Your task to perform on an android device: open app "Walmart Shopping & Grocery" (install if not already installed) Image 0: 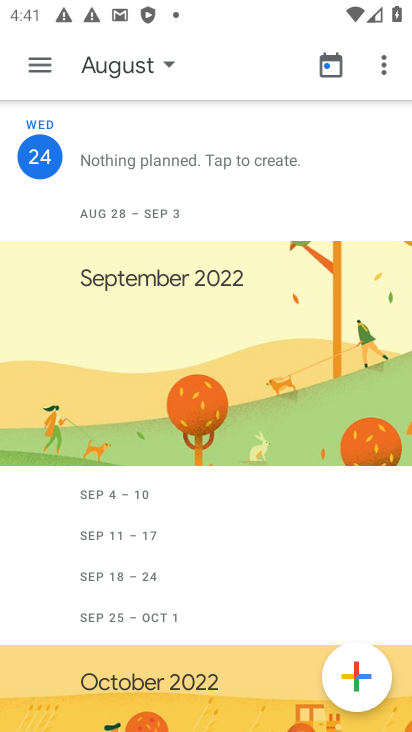
Step 0: press home button
Your task to perform on an android device: open app "Walmart Shopping & Grocery" (install if not already installed) Image 1: 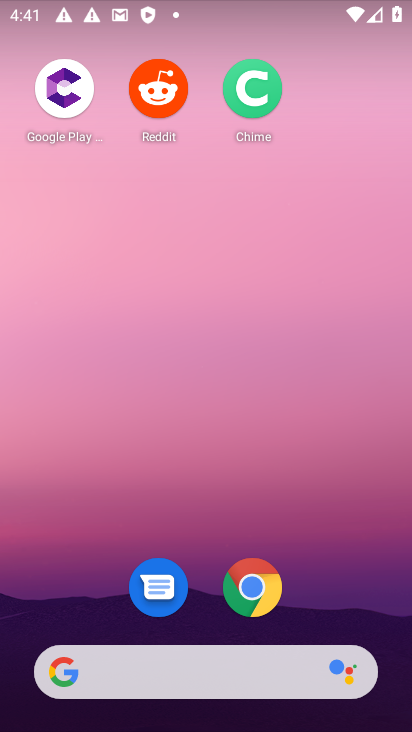
Step 1: drag from (156, 656) to (161, 143)
Your task to perform on an android device: open app "Walmart Shopping & Grocery" (install if not already installed) Image 2: 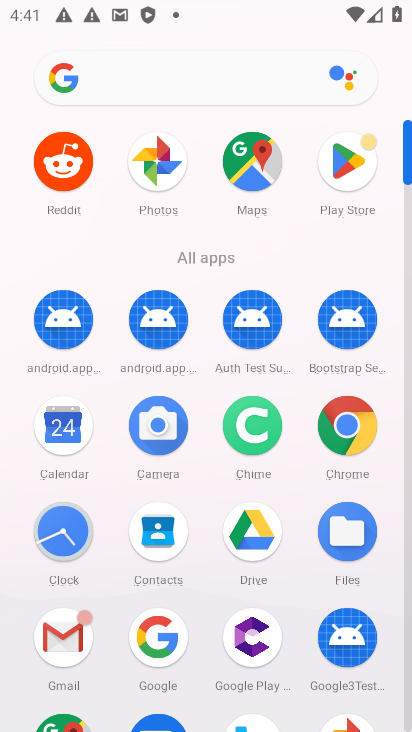
Step 2: click (351, 176)
Your task to perform on an android device: open app "Walmart Shopping & Grocery" (install if not already installed) Image 3: 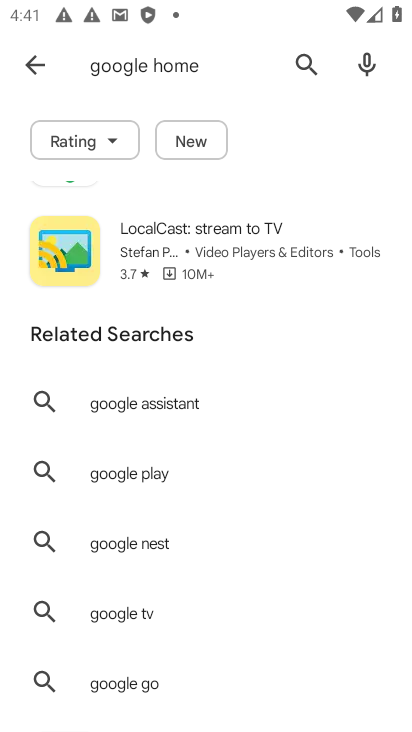
Step 3: press back button
Your task to perform on an android device: open app "Walmart Shopping & Grocery" (install if not already installed) Image 4: 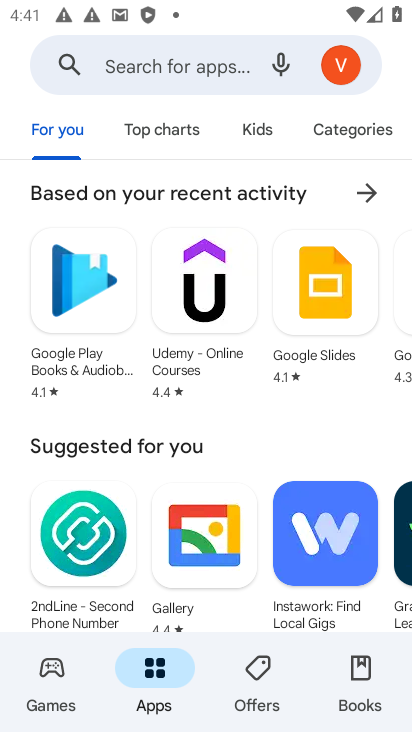
Step 4: click (192, 74)
Your task to perform on an android device: open app "Walmart Shopping & Grocery" (install if not already installed) Image 5: 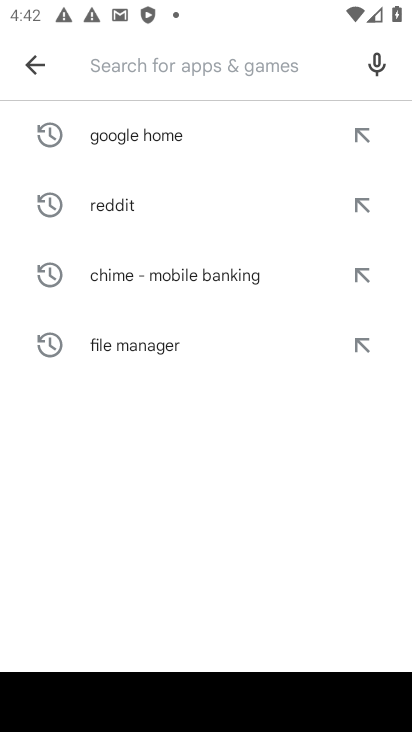
Step 5: type "Walmart Shopping & Grocery"
Your task to perform on an android device: open app "Walmart Shopping & Grocery" (install if not already installed) Image 6: 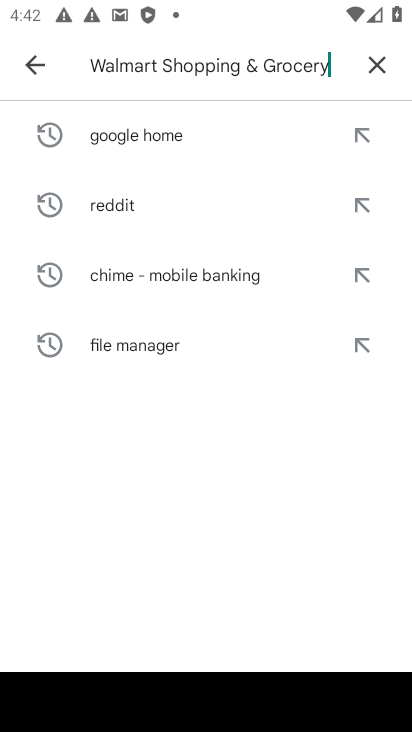
Step 6: type ""
Your task to perform on an android device: open app "Walmart Shopping & Grocery" (install if not already installed) Image 7: 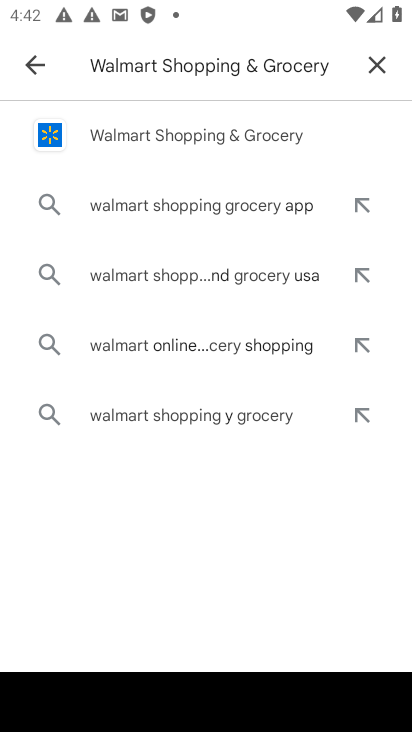
Step 7: click (233, 135)
Your task to perform on an android device: open app "Walmart Shopping & Grocery" (install if not already installed) Image 8: 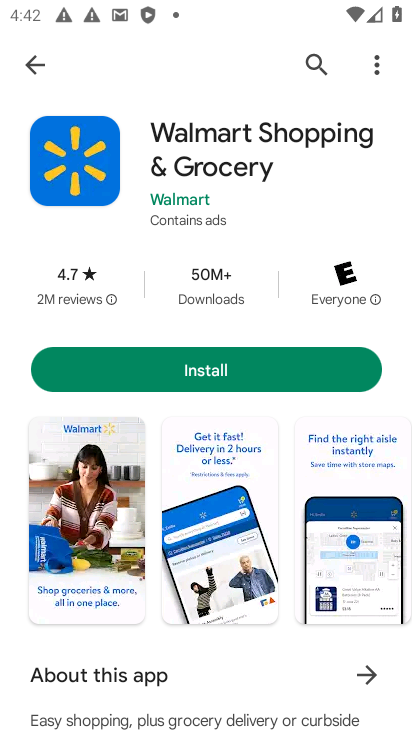
Step 8: click (198, 378)
Your task to perform on an android device: open app "Walmart Shopping & Grocery" (install if not already installed) Image 9: 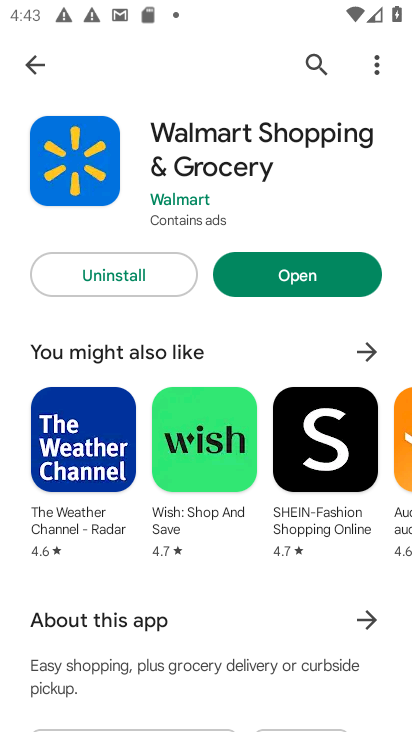
Step 9: click (294, 280)
Your task to perform on an android device: open app "Walmart Shopping & Grocery" (install if not already installed) Image 10: 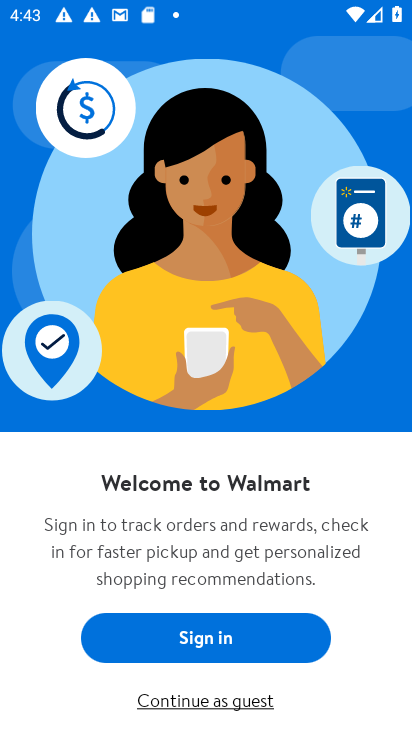
Step 10: task complete